Your task to perform on an android device: What's the weather going to be tomorrow? Image 0: 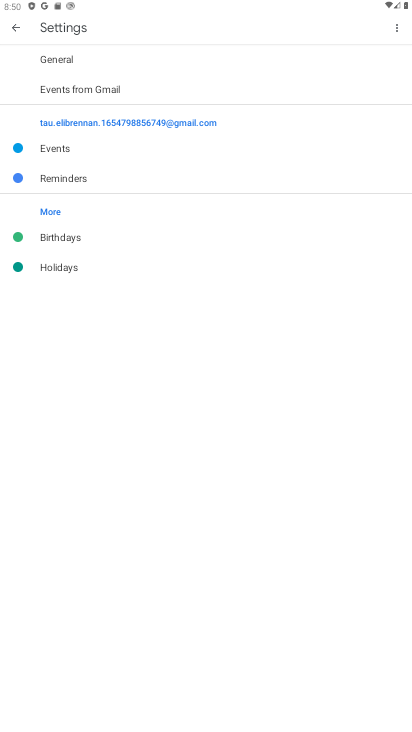
Step 0: click (6, 20)
Your task to perform on an android device: What's the weather going to be tomorrow? Image 1: 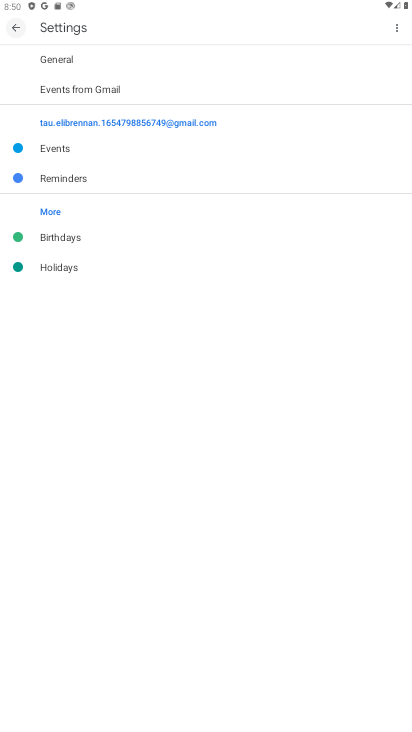
Step 1: click (11, 43)
Your task to perform on an android device: What's the weather going to be tomorrow? Image 2: 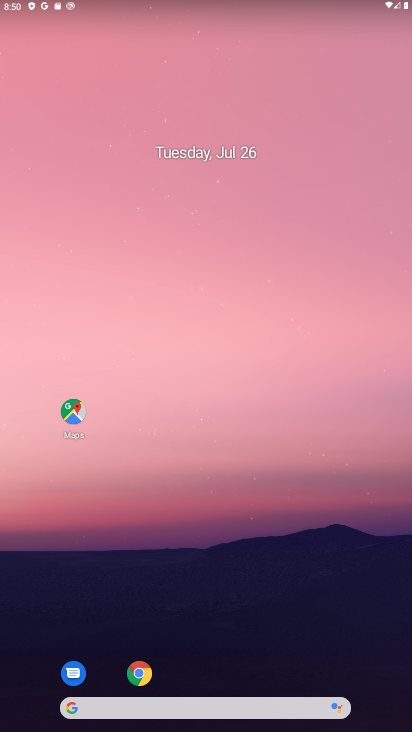
Step 2: drag from (233, 508) to (230, 51)
Your task to perform on an android device: What's the weather going to be tomorrow? Image 3: 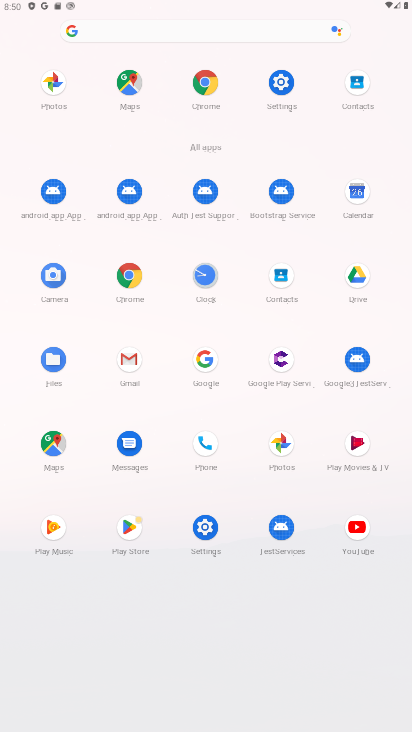
Step 3: click (207, 87)
Your task to perform on an android device: What's the weather going to be tomorrow? Image 4: 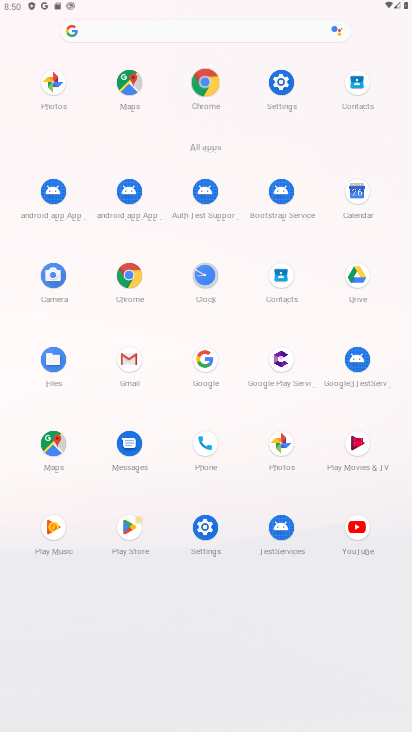
Step 4: click (207, 87)
Your task to perform on an android device: What's the weather going to be tomorrow? Image 5: 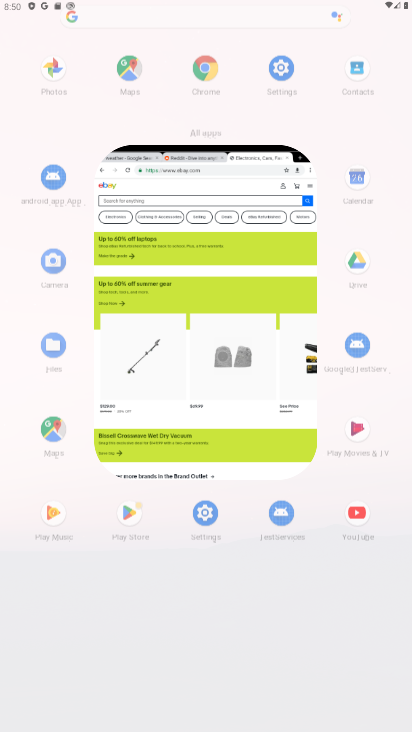
Step 5: click (206, 84)
Your task to perform on an android device: What's the weather going to be tomorrow? Image 6: 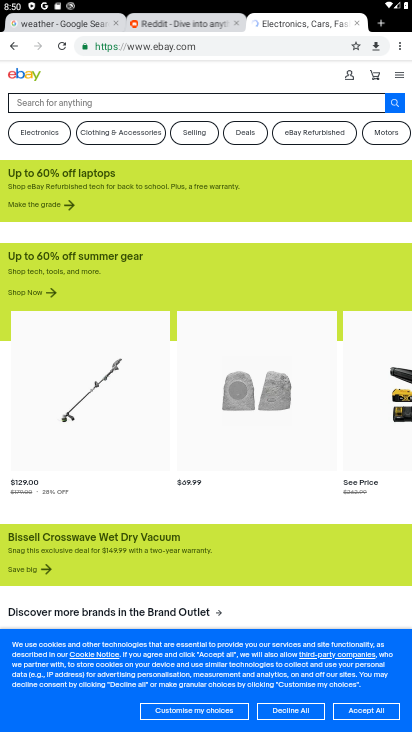
Step 6: drag from (395, 51) to (297, 48)
Your task to perform on an android device: What's the weather going to be tomorrow? Image 7: 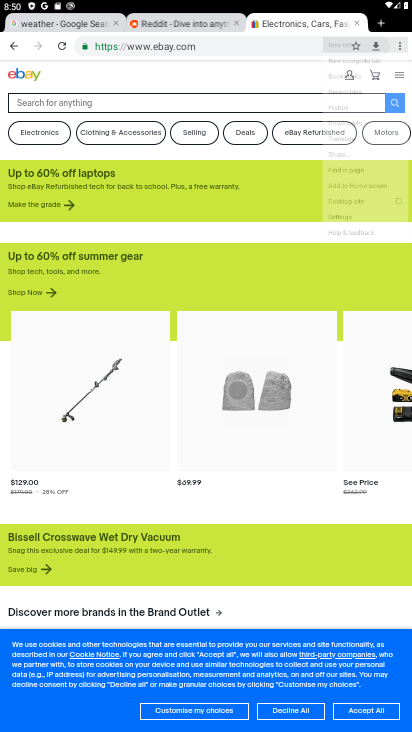
Step 7: click (299, 48)
Your task to perform on an android device: What's the weather going to be tomorrow? Image 8: 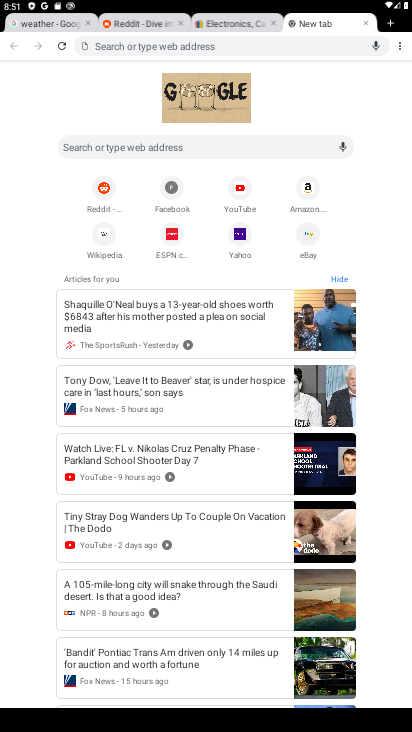
Step 8: type "what's the weather going to be tomorrow?"
Your task to perform on an android device: What's the weather going to be tomorrow? Image 9: 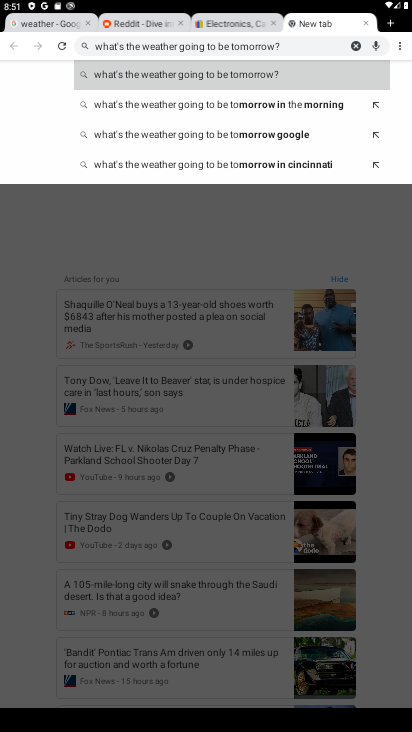
Step 9: click (259, 77)
Your task to perform on an android device: What's the weather going to be tomorrow? Image 10: 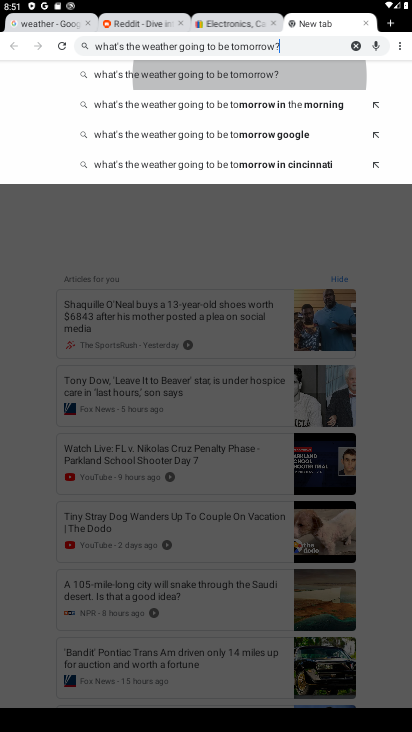
Step 10: click (258, 78)
Your task to perform on an android device: What's the weather going to be tomorrow? Image 11: 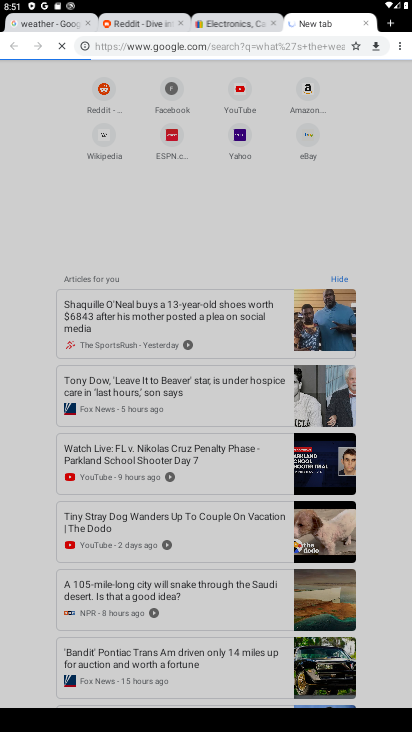
Step 11: click (259, 77)
Your task to perform on an android device: What's the weather going to be tomorrow? Image 12: 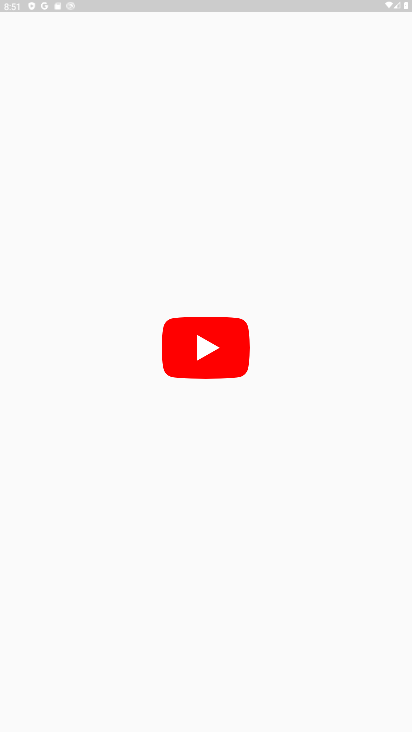
Step 12: task complete